Your task to perform on an android device: Check the news Image 0: 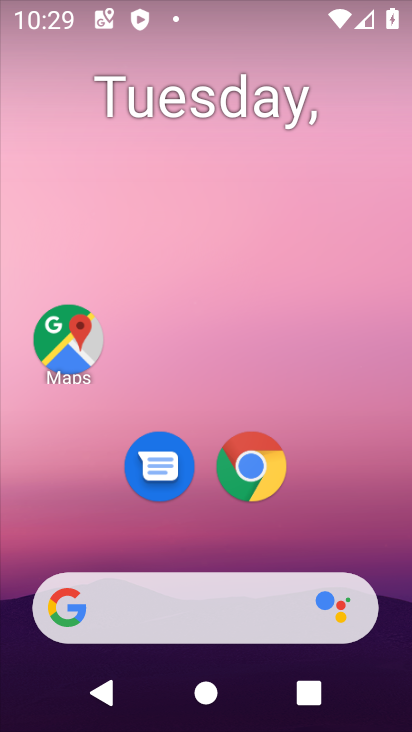
Step 0: drag from (3, 474) to (296, 372)
Your task to perform on an android device: Check the news Image 1: 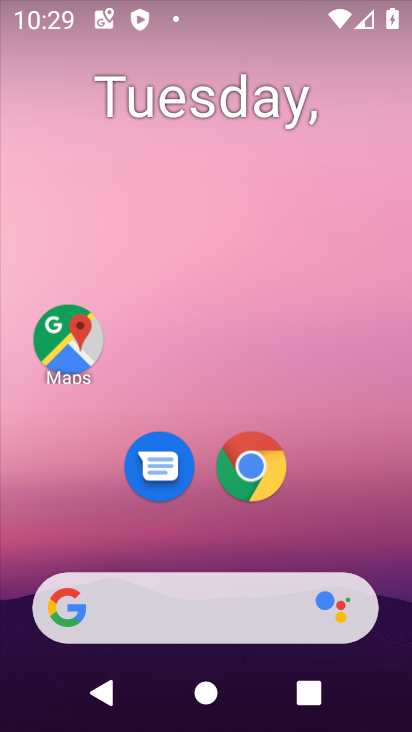
Step 1: task complete